Your task to perform on an android device: open app "Facebook" Image 0: 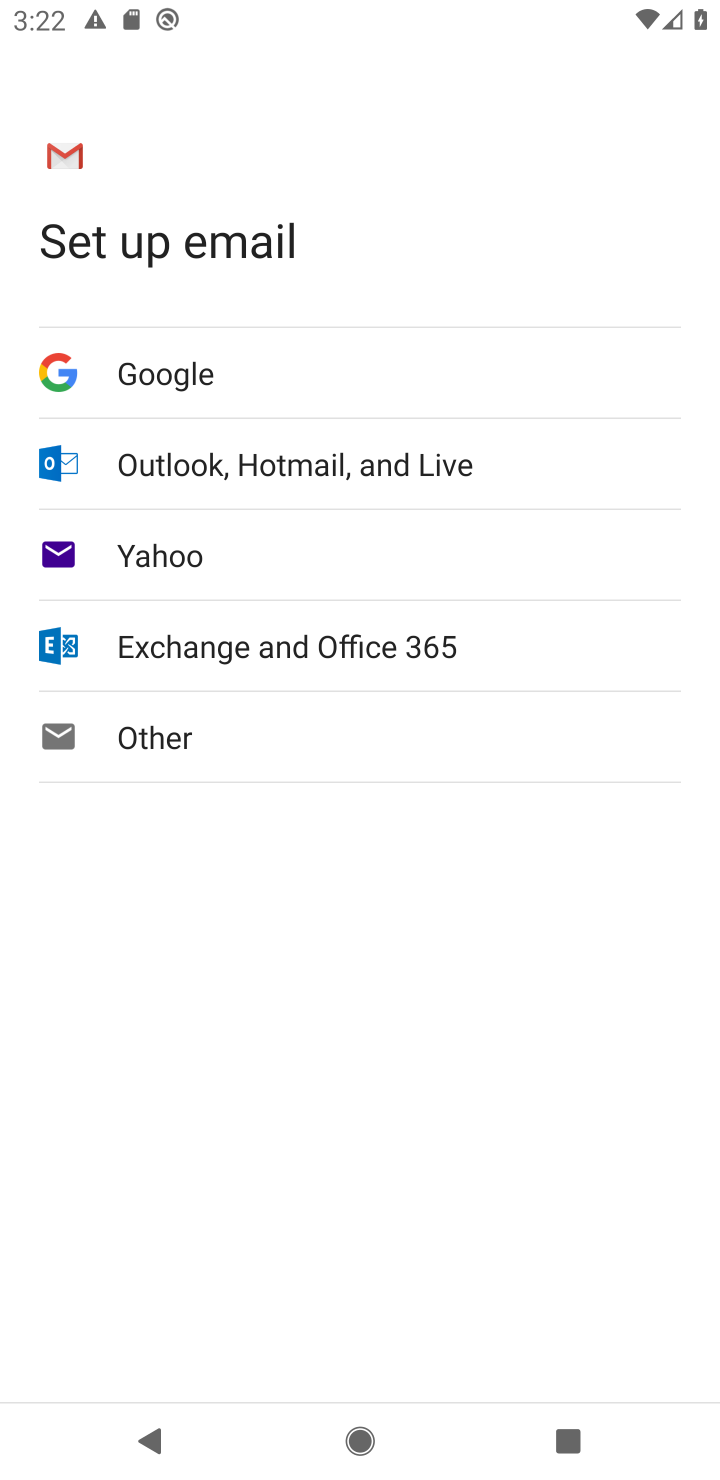
Step 0: task impossible